Your task to perform on an android device: turn off location Image 0: 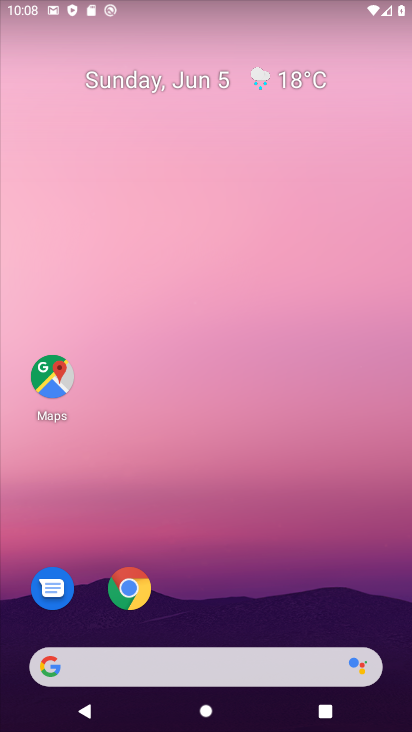
Step 0: drag from (317, 590) to (304, 189)
Your task to perform on an android device: turn off location Image 1: 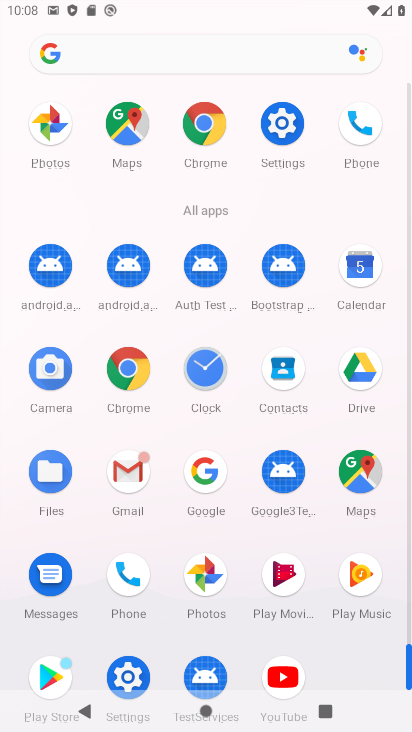
Step 1: click (141, 662)
Your task to perform on an android device: turn off location Image 2: 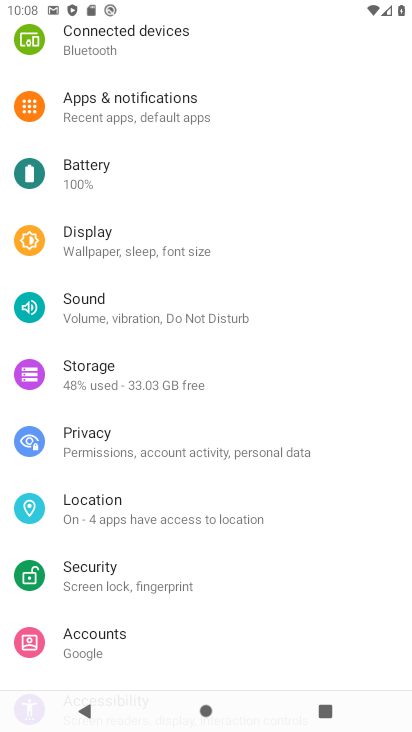
Step 2: click (176, 509)
Your task to perform on an android device: turn off location Image 3: 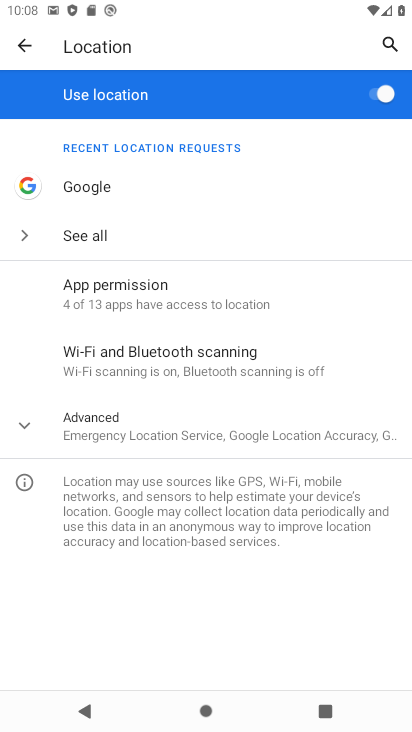
Step 3: click (385, 94)
Your task to perform on an android device: turn off location Image 4: 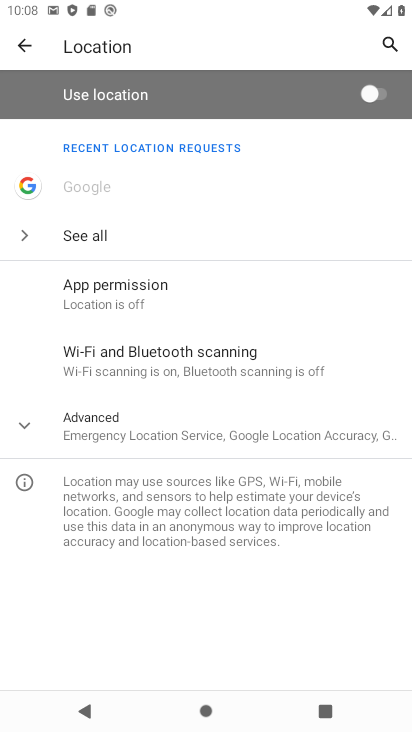
Step 4: task complete